Your task to perform on an android device: Open calendar and show me the second week of next month Image 0: 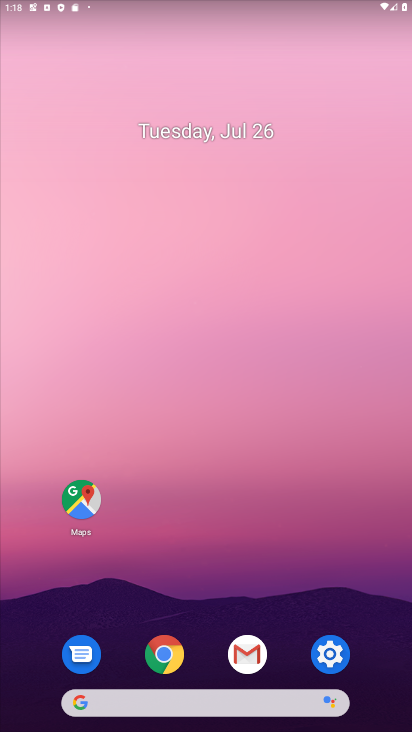
Step 0: drag from (310, 718) to (214, 155)
Your task to perform on an android device: Open calendar and show me the second week of next month Image 1: 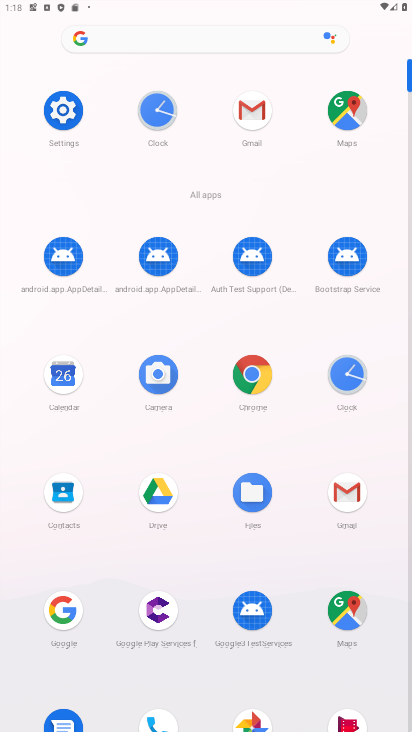
Step 1: click (53, 385)
Your task to perform on an android device: Open calendar and show me the second week of next month Image 2: 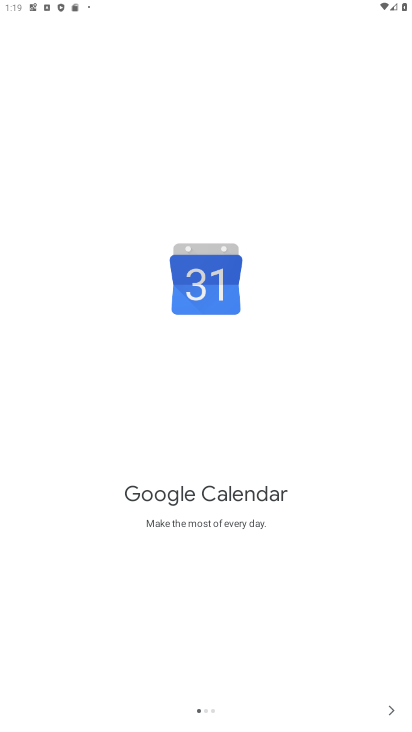
Step 2: click (391, 705)
Your task to perform on an android device: Open calendar and show me the second week of next month Image 3: 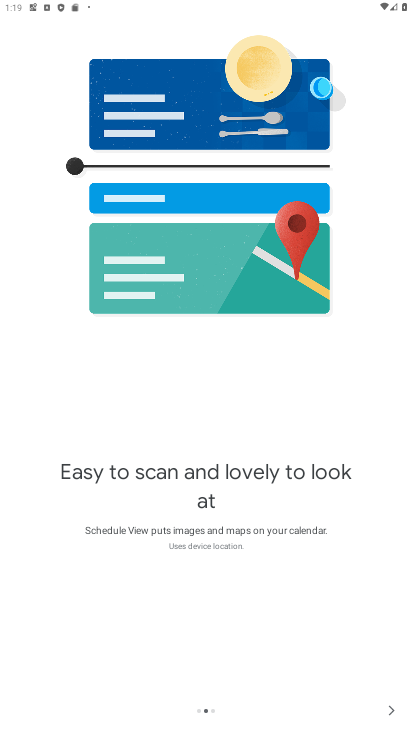
Step 3: click (379, 711)
Your task to perform on an android device: Open calendar and show me the second week of next month Image 4: 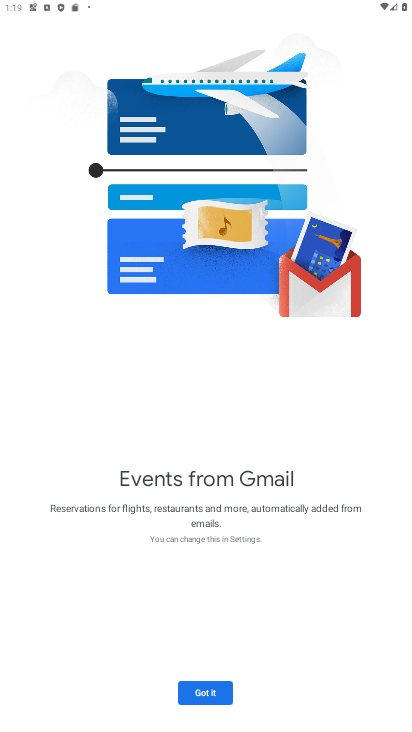
Step 4: click (196, 687)
Your task to perform on an android device: Open calendar and show me the second week of next month Image 5: 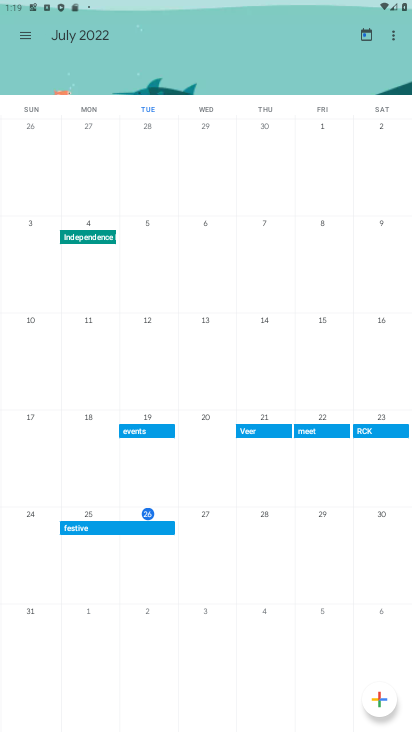
Step 5: drag from (356, 309) to (5, 372)
Your task to perform on an android device: Open calendar and show me the second week of next month Image 6: 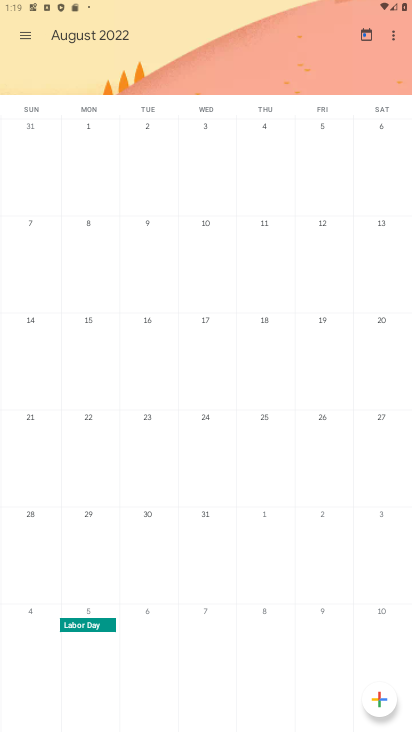
Step 6: click (90, 231)
Your task to perform on an android device: Open calendar and show me the second week of next month Image 7: 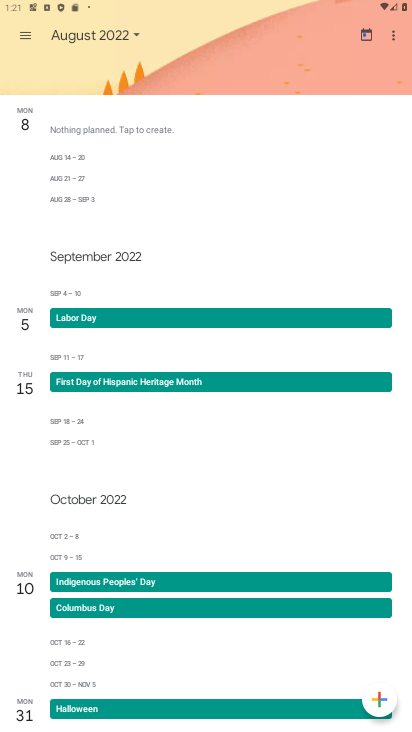
Step 7: task complete